Your task to perform on an android device: turn off location history Image 0: 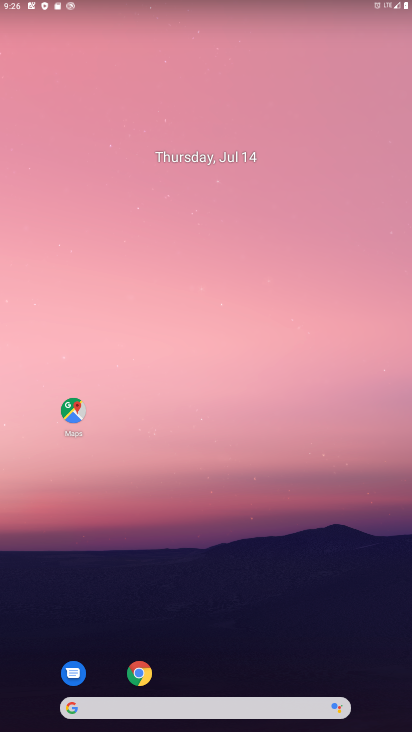
Step 0: drag from (193, 705) to (194, 150)
Your task to perform on an android device: turn off location history Image 1: 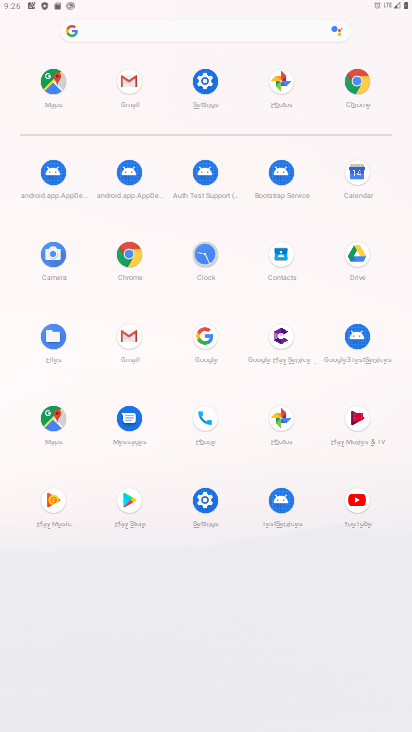
Step 1: click (207, 82)
Your task to perform on an android device: turn off location history Image 2: 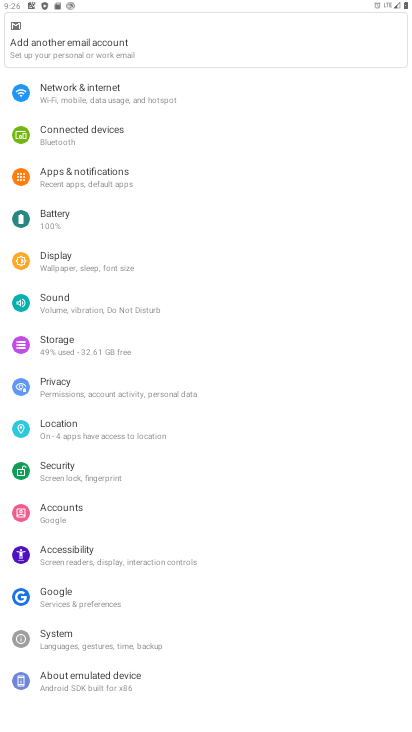
Step 2: click (62, 429)
Your task to perform on an android device: turn off location history Image 3: 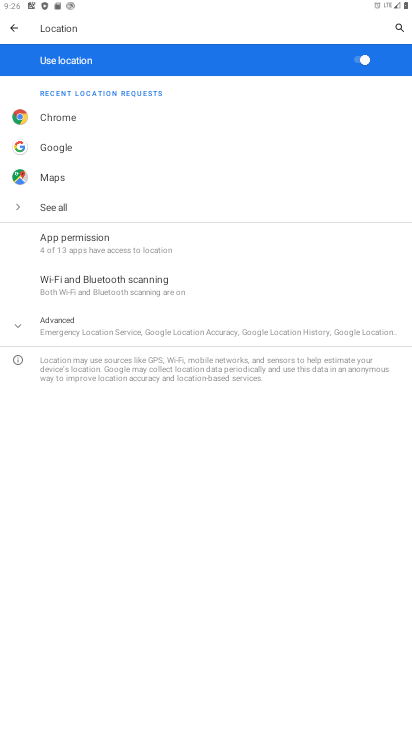
Step 3: click (110, 331)
Your task to perform on an android device: turn off location history Image 4: 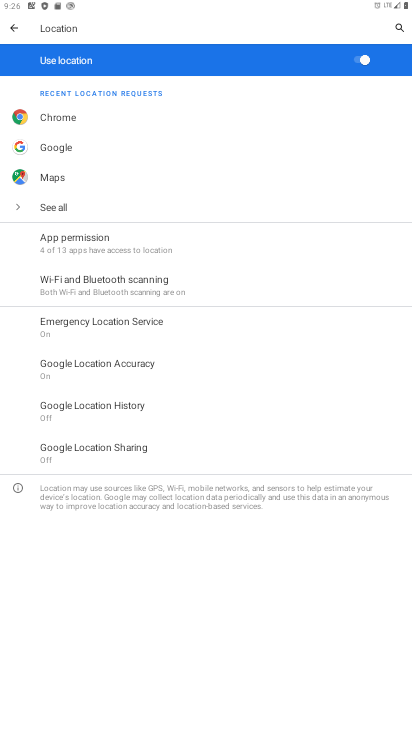
Step 4: click (79, 408)
Your task to perform on an android device: turn off location history Image 5: 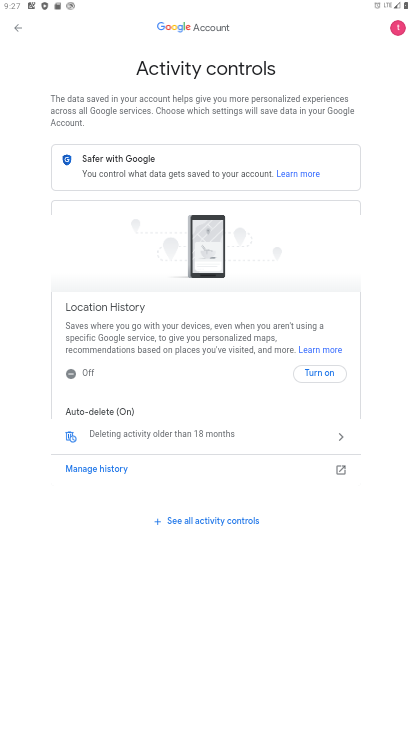
Step 5: task complete